Your task to perform on an android device: turn on translation in the chrome app Image 0: 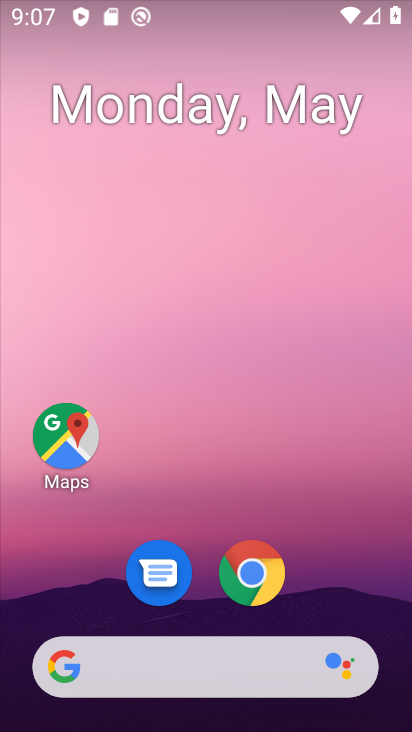
Step 0: drag from (410, 632) to (232, 213)
Your task to perform on an android device: turn on translation in the chrome app Image 1: 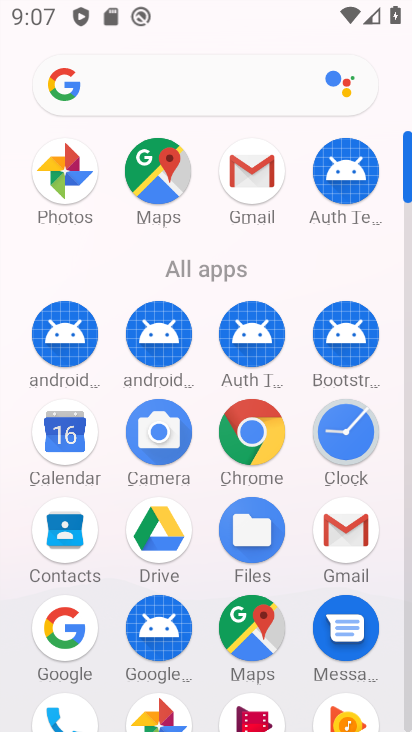
Step 1: click (258, 441)
Your task to perform on an android device: turn on translation in the chrome app Image 2: 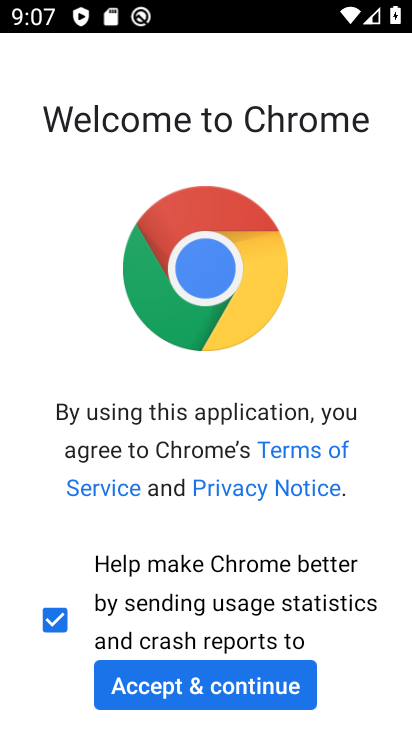
Step 2: click (224, 687)
Your task to perform on an android device: turn on translation in the chrome app Image 3: 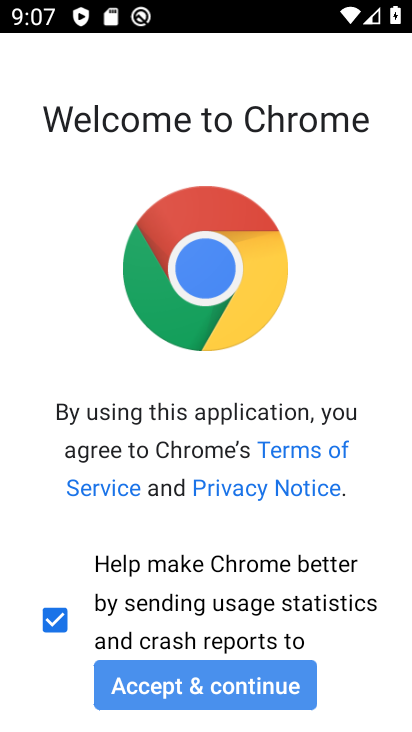
Step 3: click (224, 686)
Your task to perform on an android device: turn on translation in the chrome app Image 4: 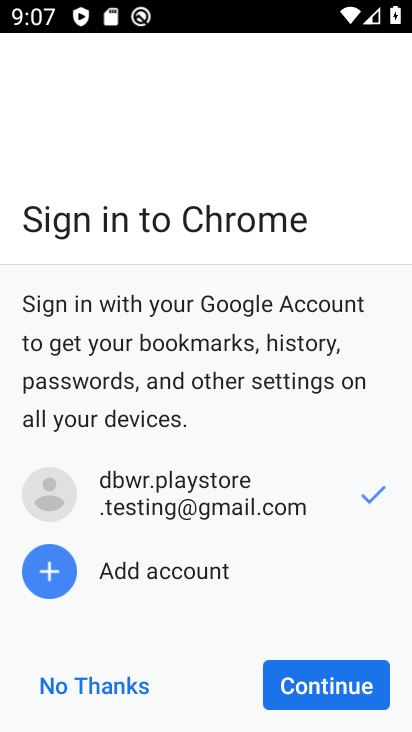
Step 4: click (319, 684)
Your task to perform on an android device: turn on translation in the chrome app Image 5: 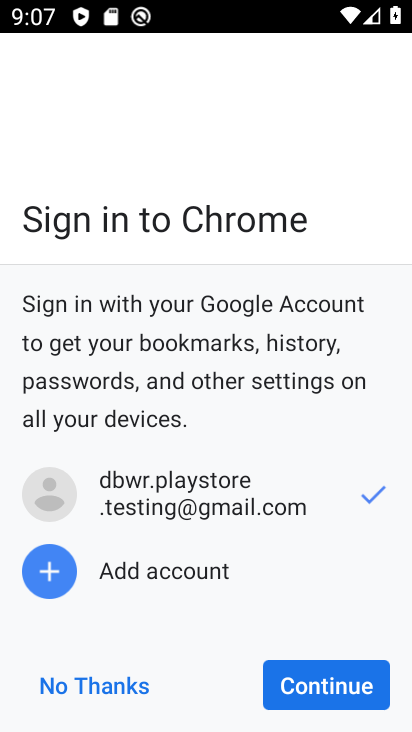
Step 5: click (324, 689)
Your task to perform on an android device: turn on translation in the chrome app Image 6: 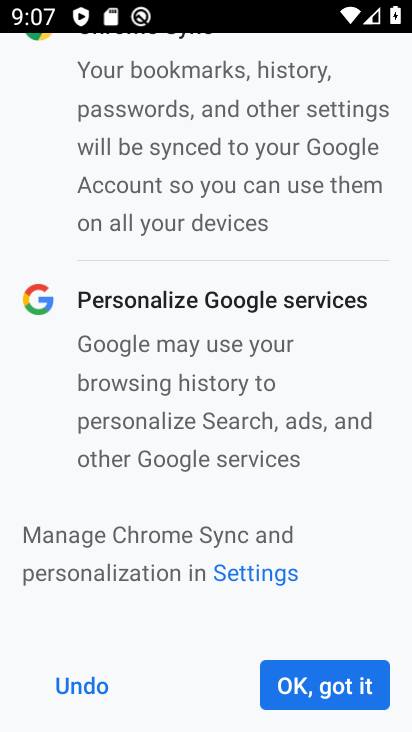
Step 6: click (334, 686)
Your task to perform on an android device: turn on translation in the chrome app Image 7: 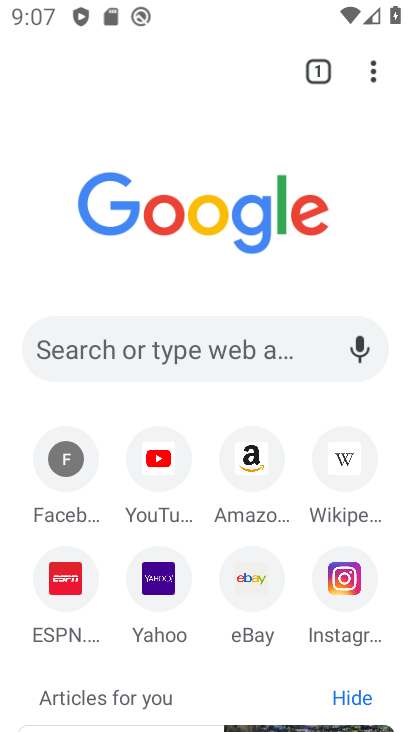
Step 7: click (374, 69)
Your task to perform on an android device: turn on translation in the chrome app Image 8: 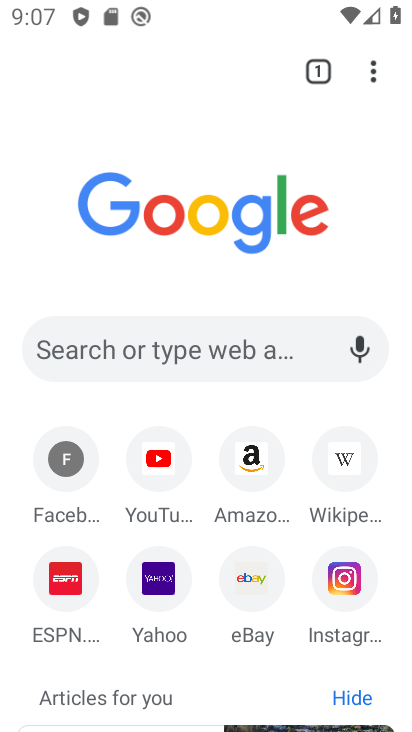
Step 8: click (367, 76)
Your task to perform on an android device: turn on translation in the chrome app Image 9: 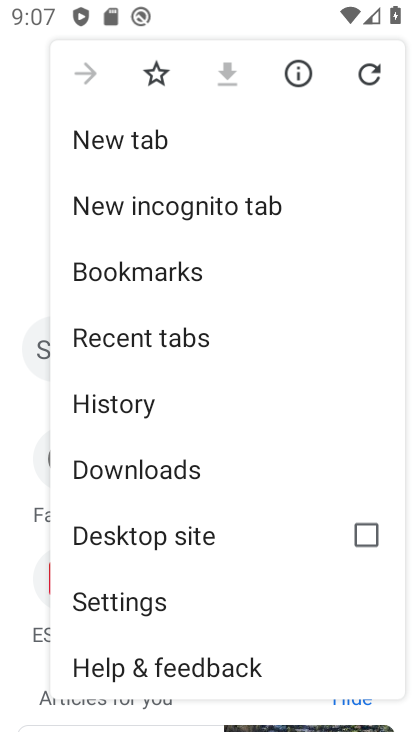
Step 9: click (367, 76)
Your task to perform on an android device: turn on translation in the chrome app Image 10: 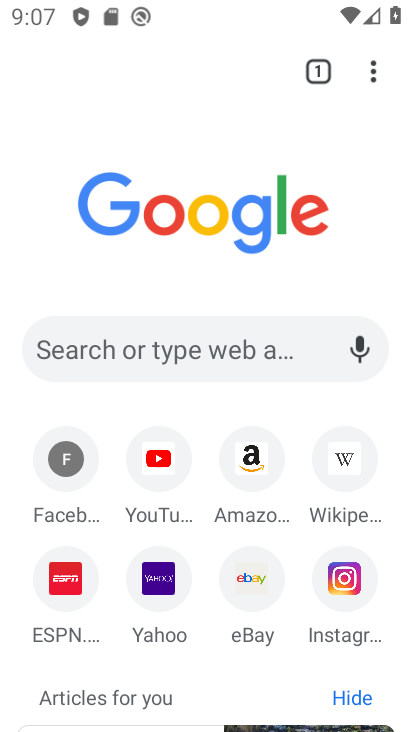
Step 10: drag from (372, 70) to (103, 606)
Your task to perform on an android device: turn on translation in the chrome app Image 11: 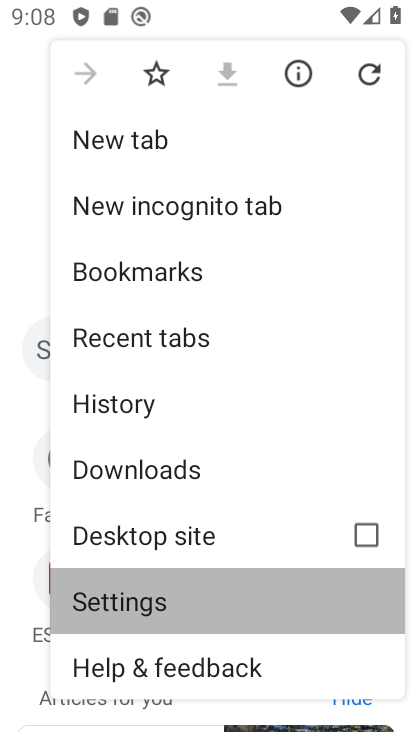
Step 11: click (114, 598)
Your task to perform on an android device: turn on translation in the chrome app Image 12: 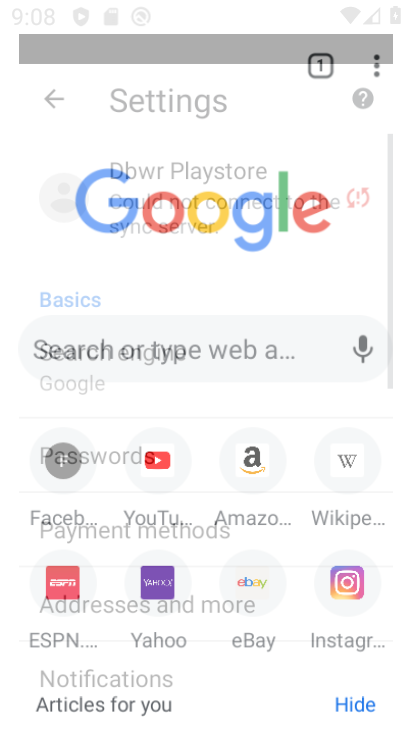
Step 12: click (114, 598)
Your task to perform on an android device: turn on translation in the chrome app Image 13: 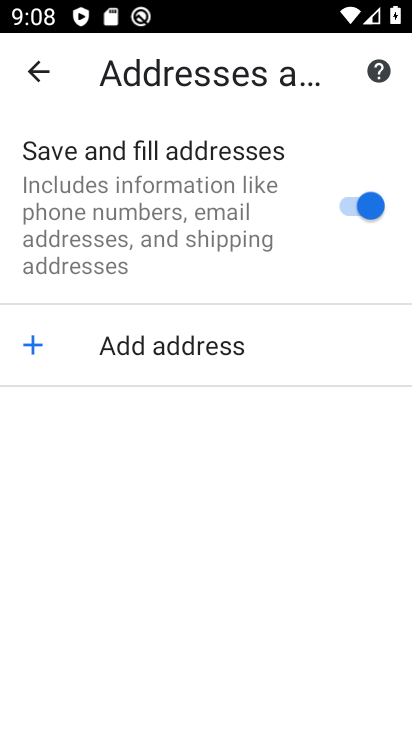
Step 13: click (28, 73)
Your task to perform on an android device: turn on translation in the chrome app Image 14: 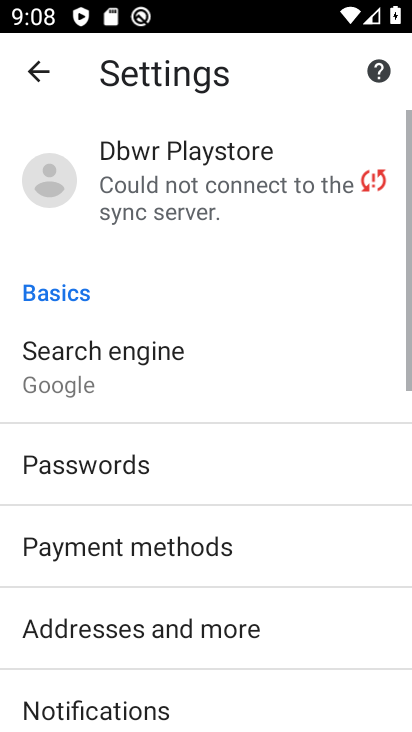
Step 14: drag from (170, 608) to (207, 275)
Your task to perform on an android device: turn on translation in the chrome app Image 15: 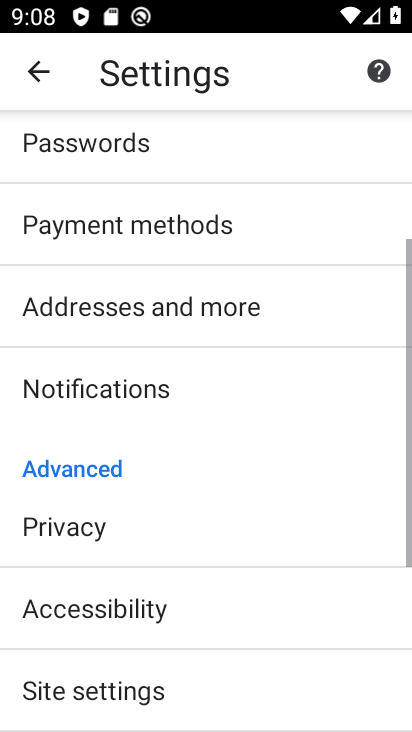
Step 15: drag from (222, 572) to (220, 142)
Your task to perform on an android device: turn on translation in the chrome app Image 16: 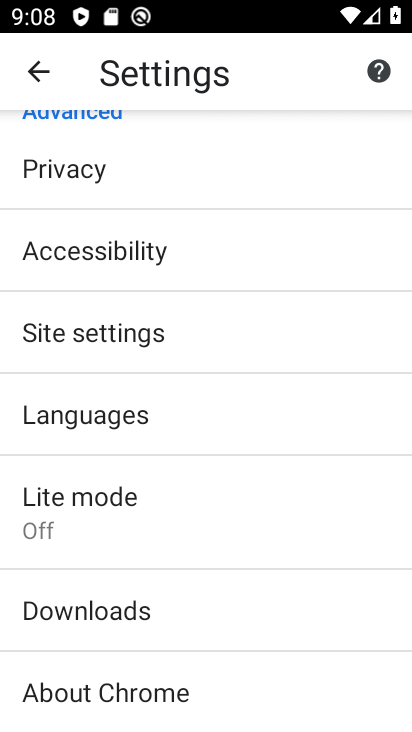
Step 16: click (83, 326)
Your task to perform on an android device: turn on translation in the chrome app Image 17: 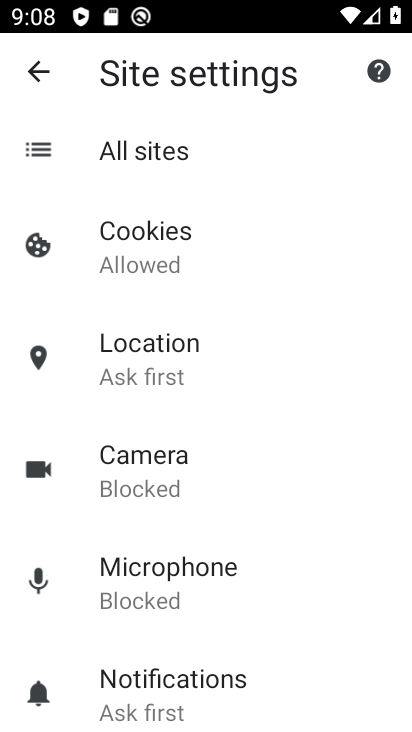
Step 17: drag from (176, 585) to (170, 166)
Your task to perform on an android device: turn on translation in the chrome app Image 18: 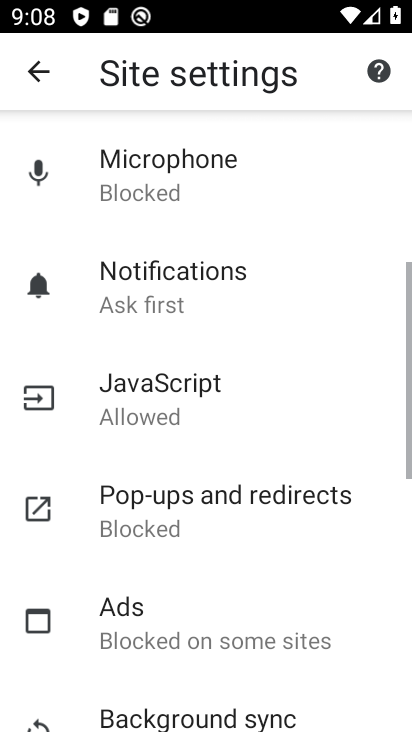
Step 18: drag from (155, 489) to (159, 127)
Your task to perform on an android device: turn on translation in the chrome app Image 19: 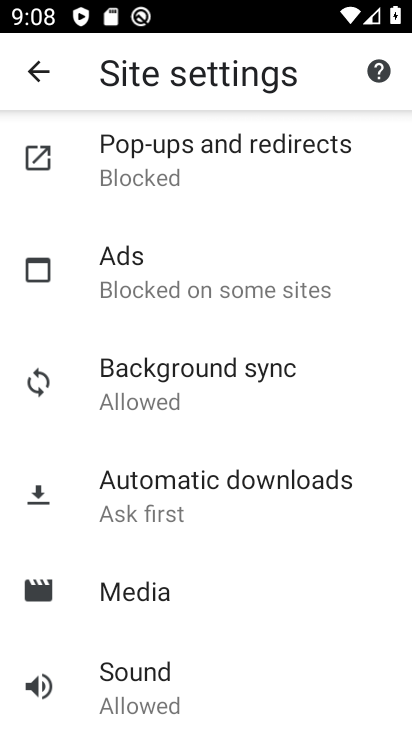
Step 19: drag from (115, 327) to (256, 617)
Your task to perform on an android device: turn on translation in the chrome app Image 20: 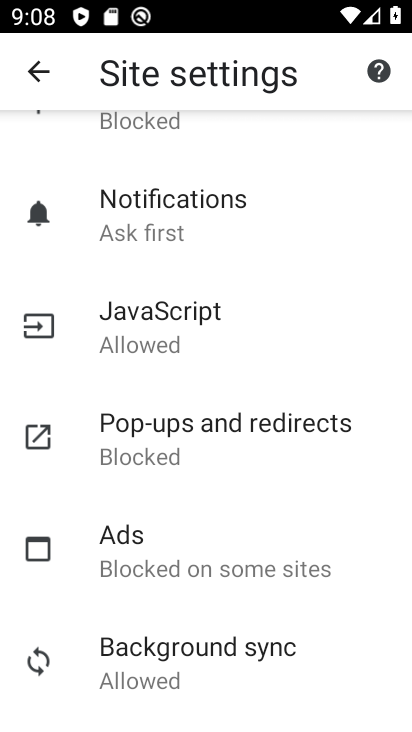
Step 20: click (31, 69)
Your task to perform on an android device: turn on translation in the chrome app Image 21: 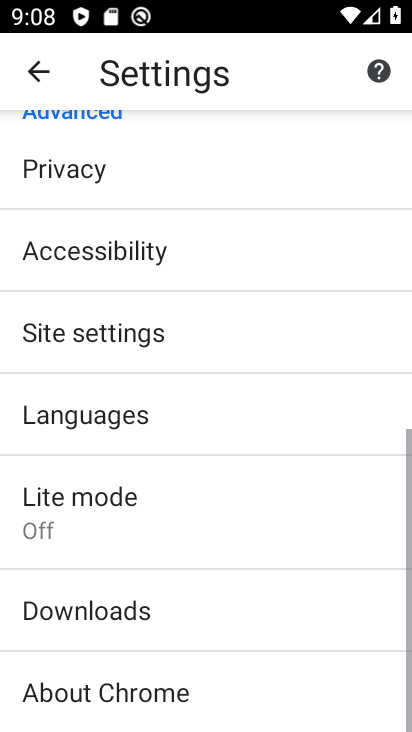
Step 21: click (79, 418)
Your task to perform on an android device: turn on translation in the chrome app Image 22: 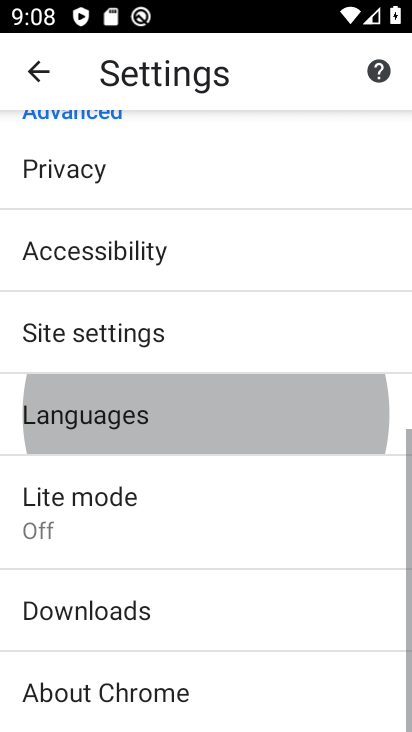
Step 22: click (79, 418)
Your task to perform on an android device: turn on translation in the chrome app Image 23: 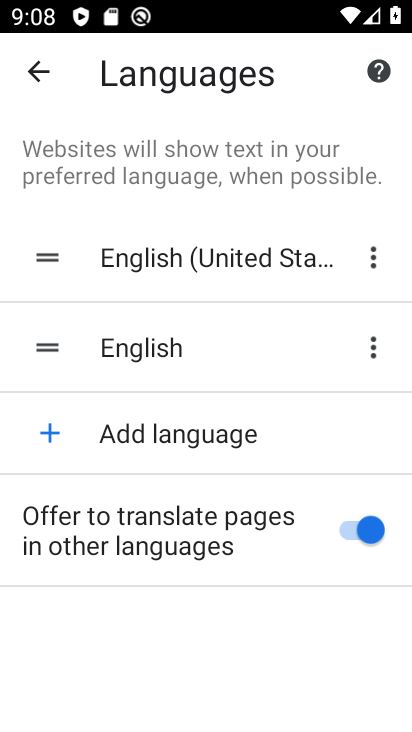
Step 23: task complete